Your task to perform on an android device: create a new album in the google photos Image 0: 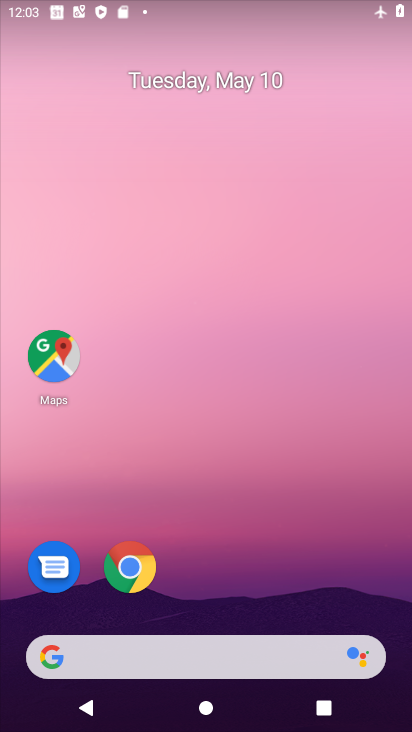
Step 0: drag from (370, 622) to (270, 135)
Your task to perform on an android device: create a new album in the google photos Image 1: 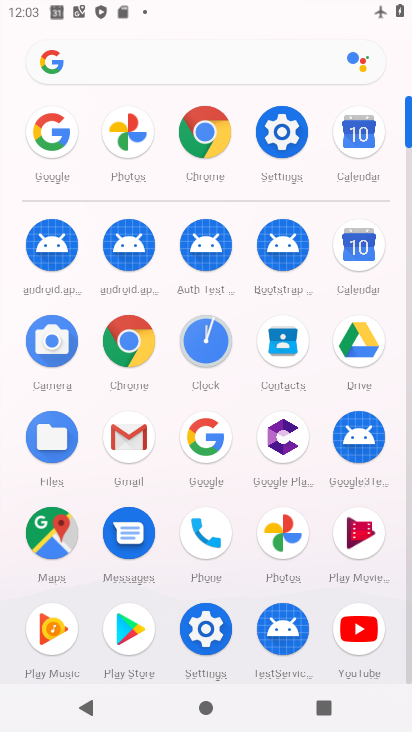
Step 1: click (286, 549)
Your task to perform on an android device: create a new album in the google photos Image 2: 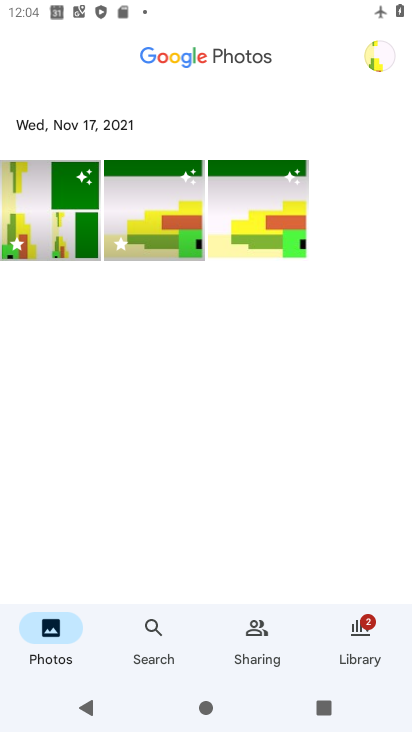
Step 2: click (48, 213)
Your task to perform on an android device: create a new album in the google photos Image 3: 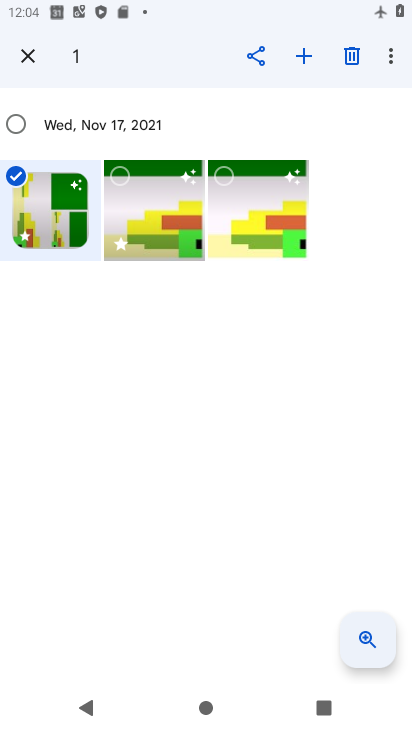
Step 3: click (303, 67)
Your task to perform on an android device: create a new album in the google photos Image 4: 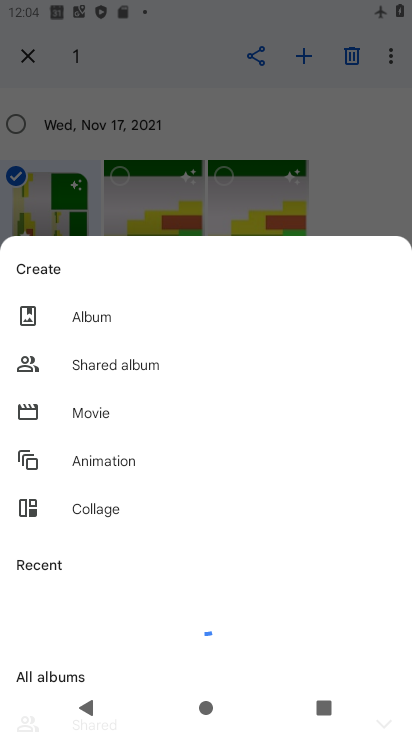
Step 4: click (125, 317)
Your task to perform on an android device: create a new album in the google photos Image 5: 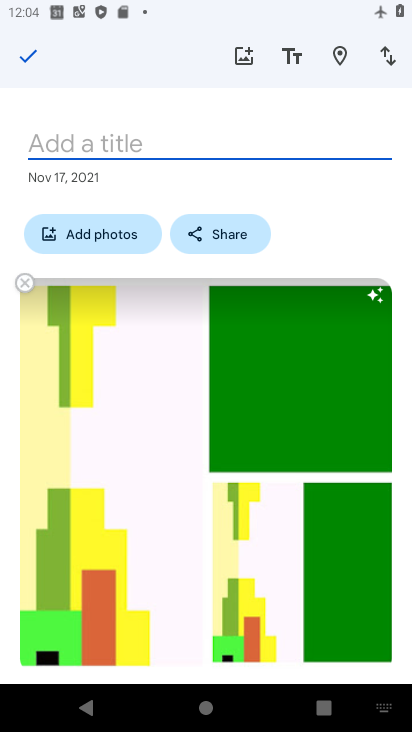
Step 5: type "LV"
Your task to perform on an android device: create a new album in the google photos Image 6: 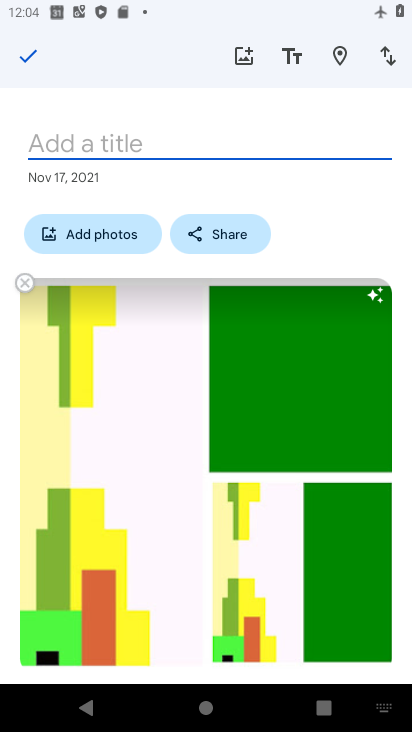
Step 6: click (39, 44)
Your task to perform on an android device: create a new album in the google photos Image 7: 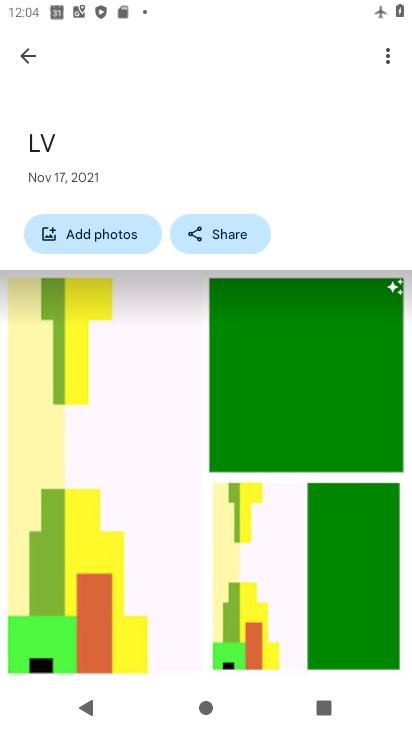
Step 7: task complete